Your task to perform on an android device: Play the last video I watched on Youtube Image 0: 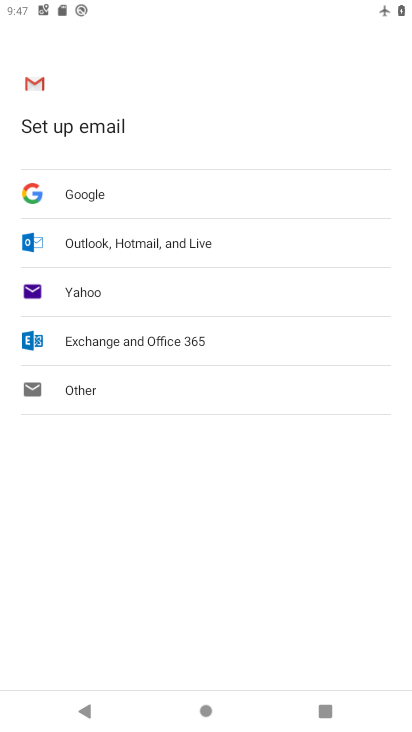
Step 0: press home button
Your task to perform on an android device: Play the last video I watched on Youtube Image 1: 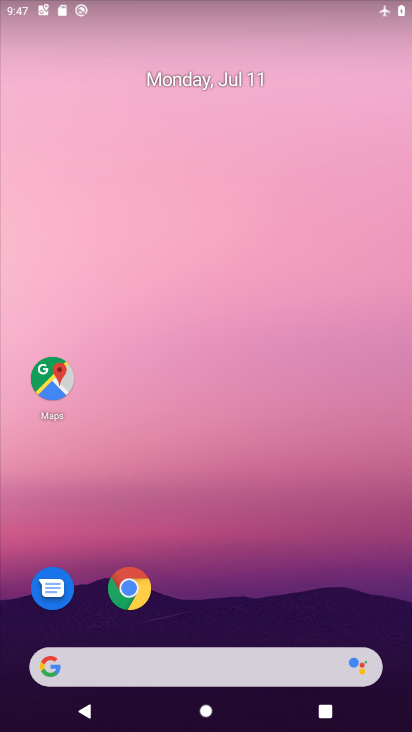
Step 1: drag from (247, 625) to (243, 201)
Your task to perform on an android device: Play the last video I watched on Youtube Image 2: 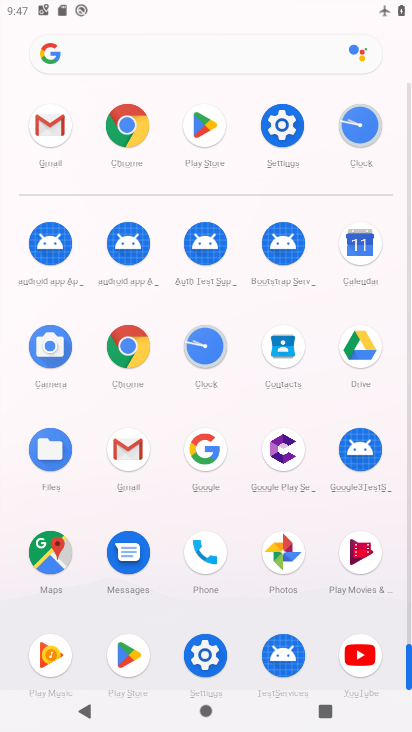
Step 2: click (362, 650)
Your task to perform on an android device: Play the last video I watched on Youtube Image 3: 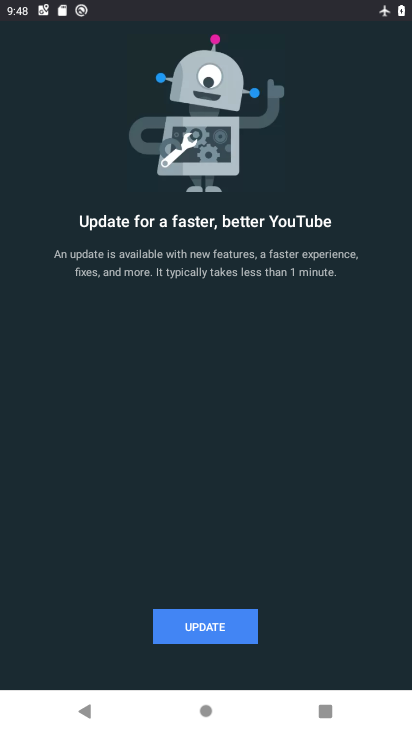
Step 3: task complete